Your task to perform on an android device: set default search engine in the chrome app Image 0: 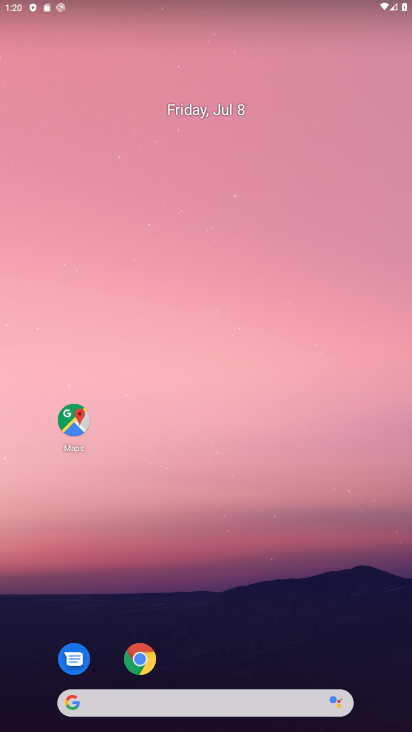
Step 0: drag from (293, 606) to (281, 388)
Your task to perform on an android device: set default search engine in the chrome app Image 1: 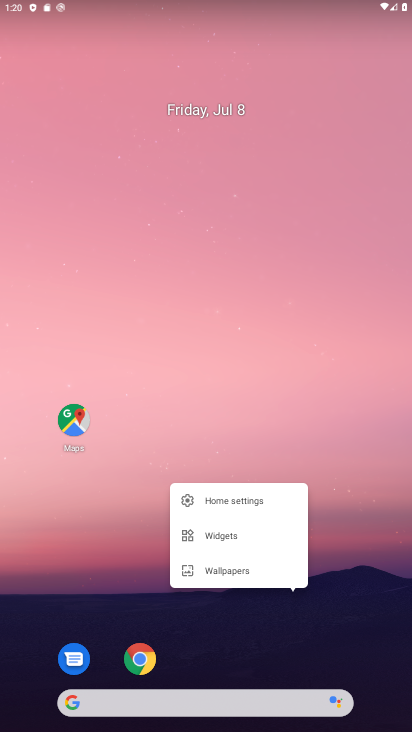
Step 1: click (337, 641)
Your task to perform on an android device: set default search engine in the chrome app Image 2: 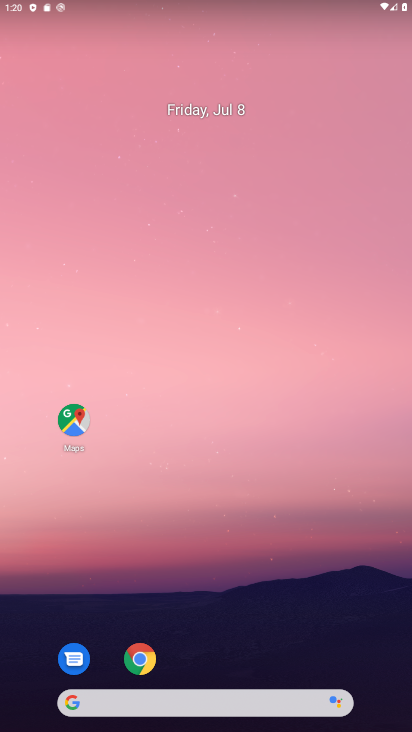
Step 2: drag from (347, 672) to (314, 123)
Your task to perform on an android device: set default search engine in the chrome app Image 3: 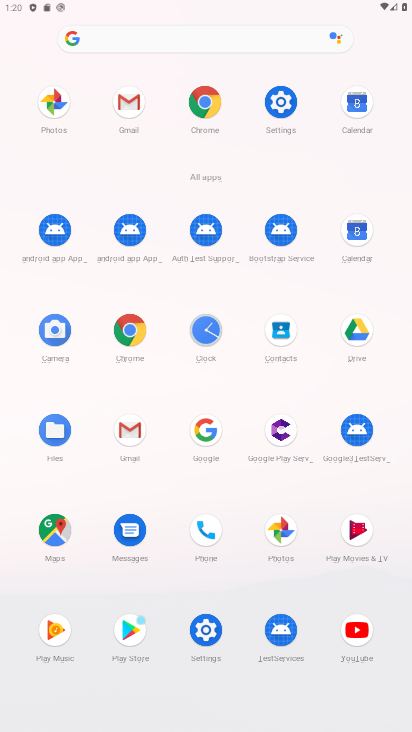
Step 3: click (211, 102)
Your task to perform on an android device: set default search engine in the chrome app Image 4: 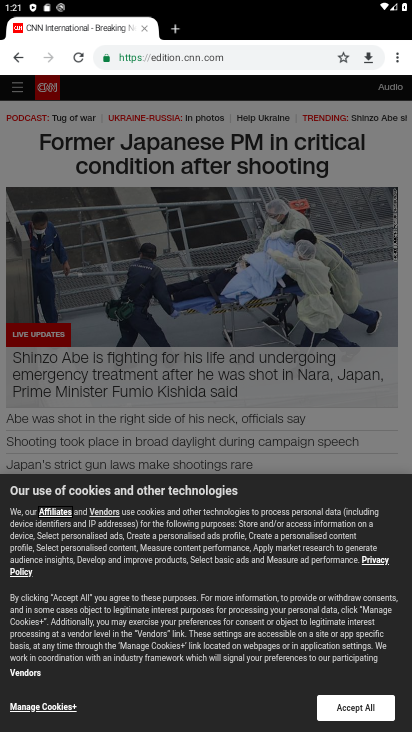
Step 4: click (358, 712)
Your task to perform on an android device: set default search engine in the chrome app Image 5: 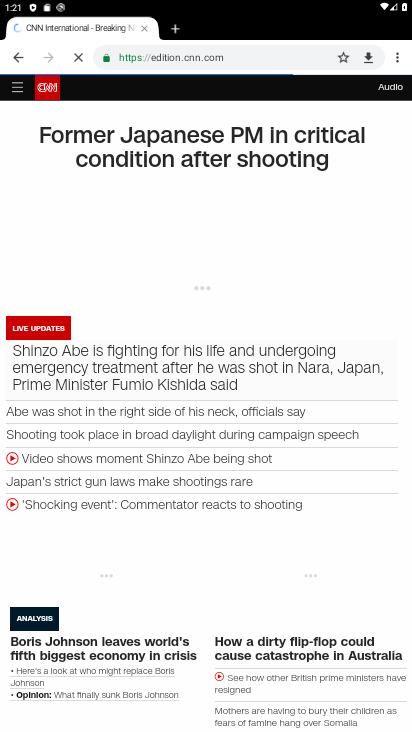
Step 5: click (397, 55)
Your task to perform on an android device: set default search engine in the chrome app Image 6: 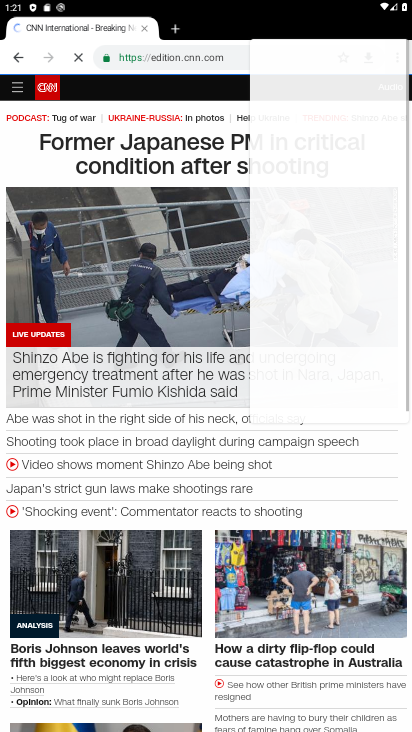
Step 6: drag from (397, 55) to (305, 402)
Your task to perform on an android device: set default search engine in the chrome app Image 7: 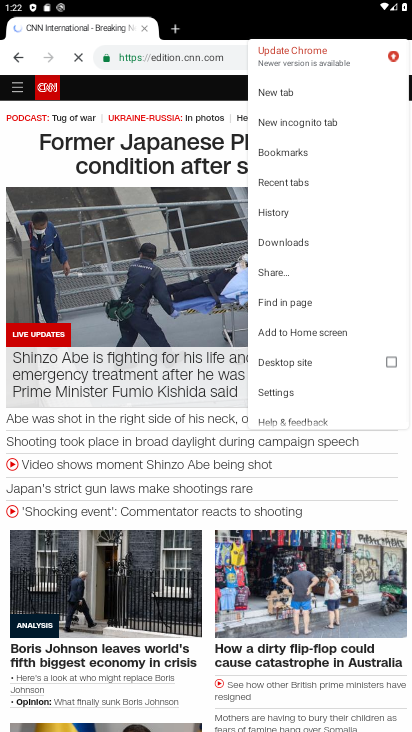
Step 7: click (305, 402)
Your task to perform on an android device: set default search engine in the chrome app Image 8: 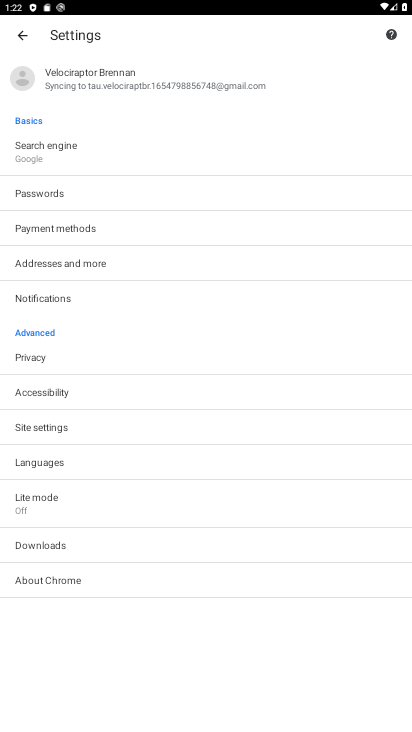
Step 8: click (89, 154)
Your task to perform on an android device: set default search engine in the chrome app Image 9: 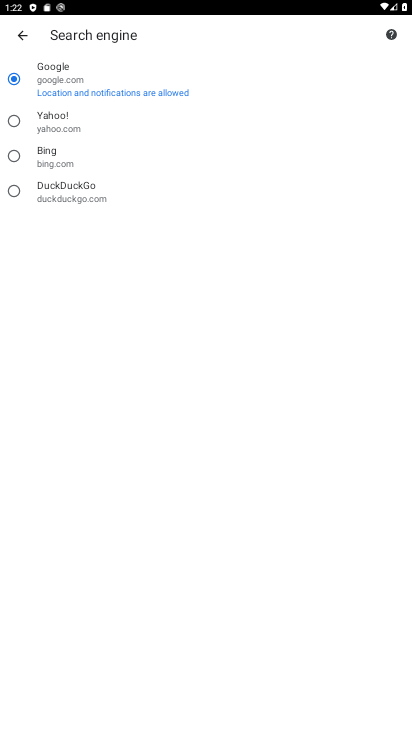
Step 9: click (37, 153)
Your task to perform on an android device: set default search engine in the chrome app Image 10: 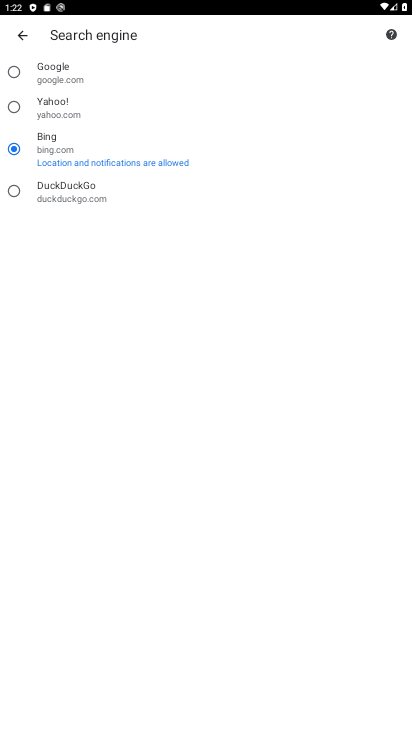
Step 10: task complete